Your task to perform on an android device: clear history in the chrome app Image 0: 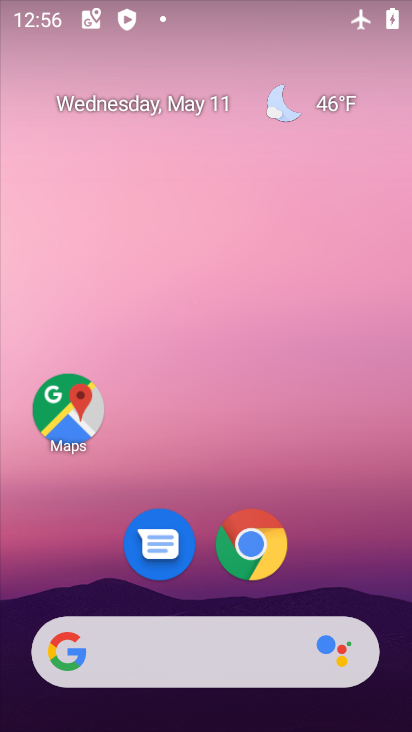
Step 0: click (251, 543)
Your task to perform on an android device: clear history in the chrome app Image 1: 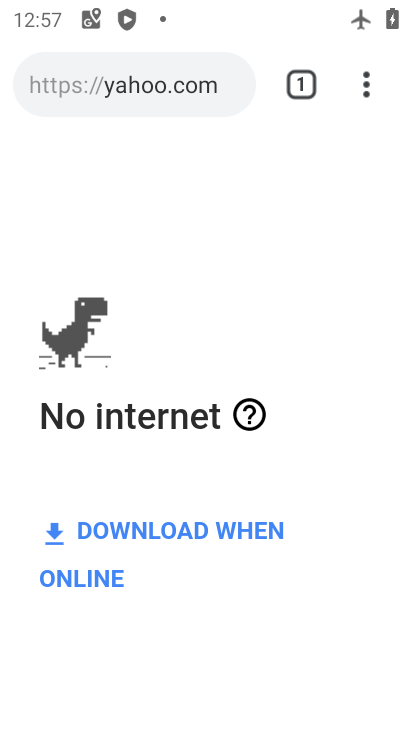
Step 1: click (365, 88)
Your task to perform on an android device: clear history in the chrome app Image 2: 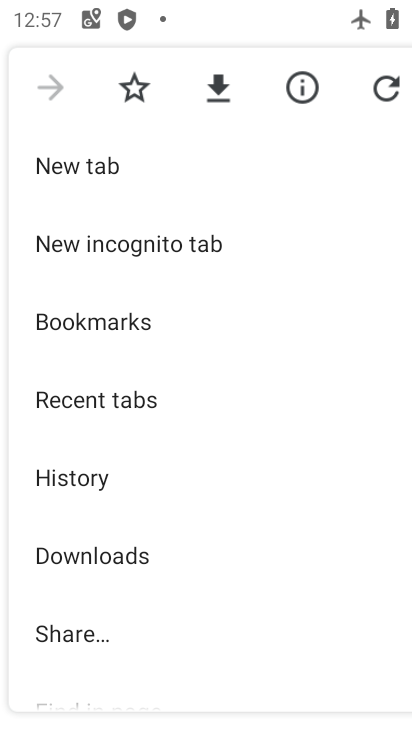
Step 2: click (65, 469)
Your task to perform on an android device: clear history in the chrome app Image 3: 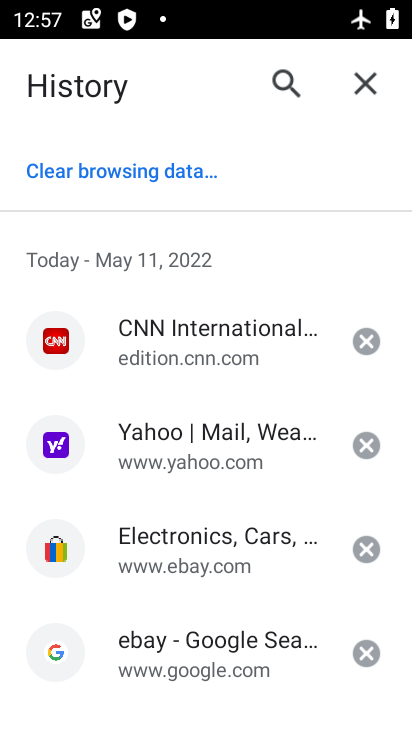
Step 3: click (84, 171)
Your task to perform on an android device: clear history in the chrome app Image 4: 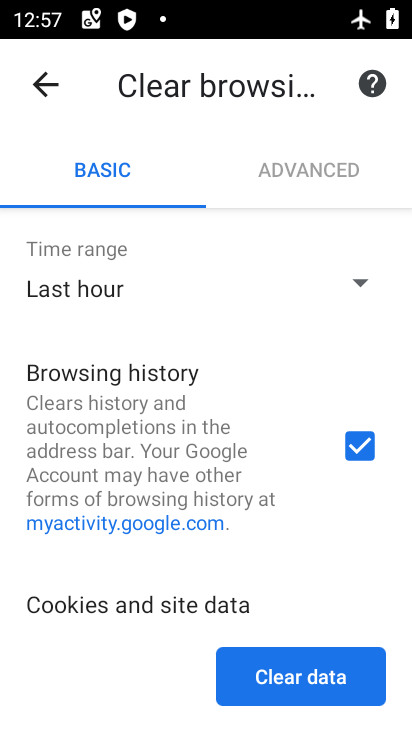
Step 4: drag from (312, 521) to (291, 334)
Your task to perform on an android device: clear history in the chrome app Image 5: 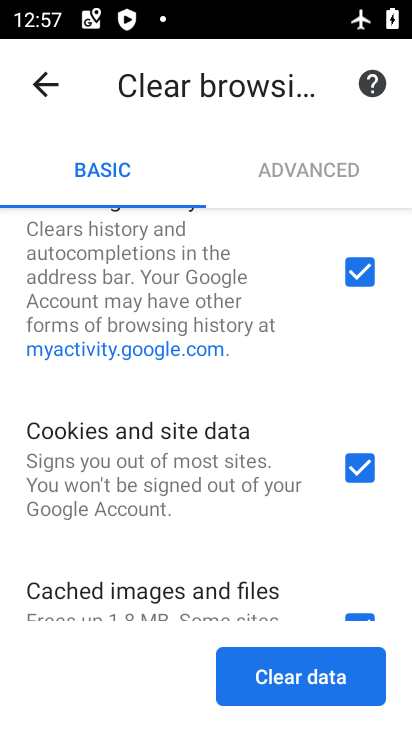
Step 5: click (366, 471)
Your task to perform on an android device: clear history in the chrome app Image 6: 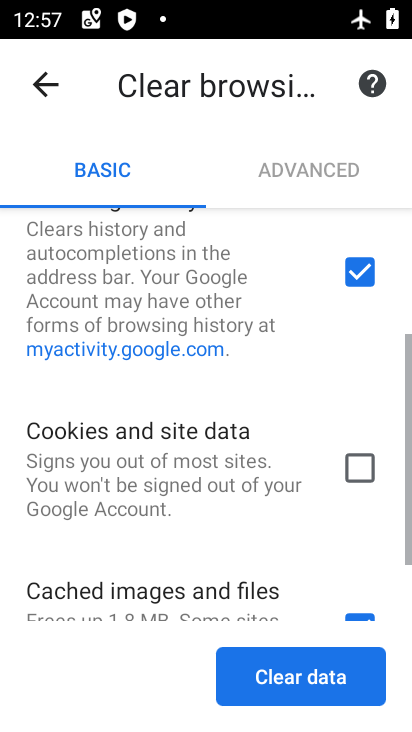
Step 6: drag from (250, 575) to (263, 248)
Your task to perform on an android device: clear history in the chrome app Image 7: 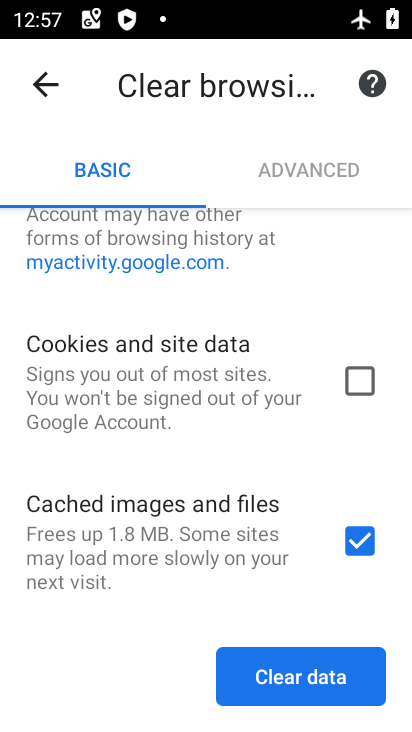
Step 7: click (359, 543)
Your task to perform on an android device: clear history in the chrome app Image 8: 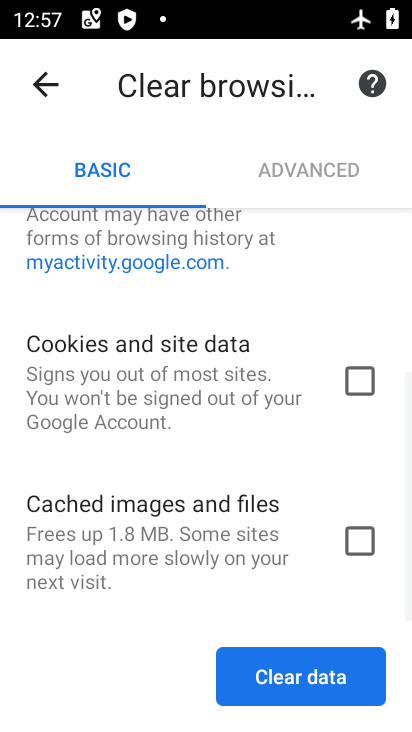
Step 8: click (295, 683)
Your task to perform on an android device: clear history in the chrome app Image 9: 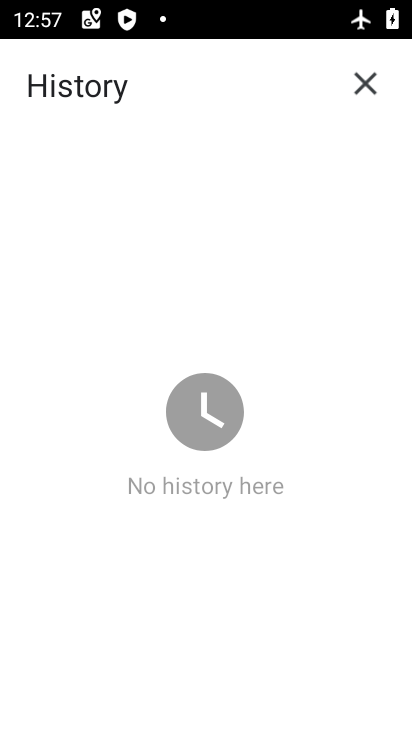
Step 9: task complete